Your task to perform on an android device: turn off data saver in the chrome app Image 0: 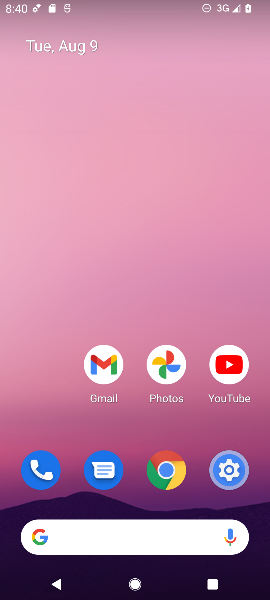
Step 0: click (164, 469)
Your task to perform on an android device: turn off data saver in the chrome app Image 1: 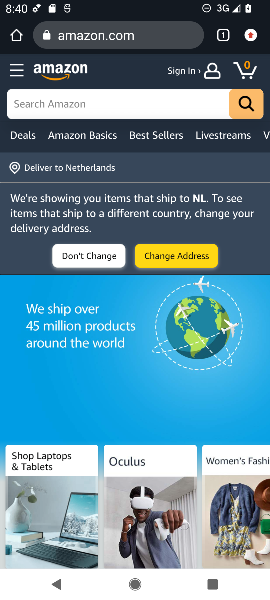
Step 1: click (249, 33)
Your task to perform on an android device: turn off data saver in the chrome app Image 2: 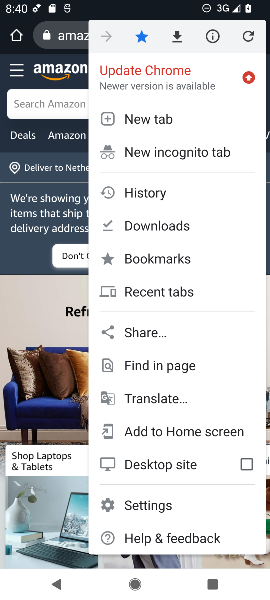
Step 2: click (140, 504)
Your task to perform on an android device: turn off data saver in the chrome app Image 3: 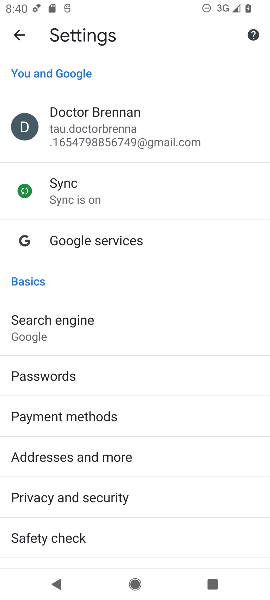
Step 3: drag from (92, 428) to (134, 322)
Your task to perform on an android device: turn off data saver in the chrome app Image 4: 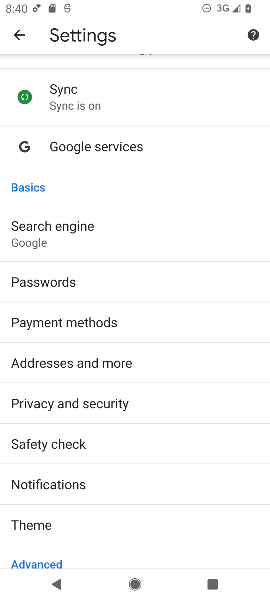
Step 4: drag from (97, 446) to (148, 353)
Your task to perform on an android device: turn off data saver in the chrome app Image 5: 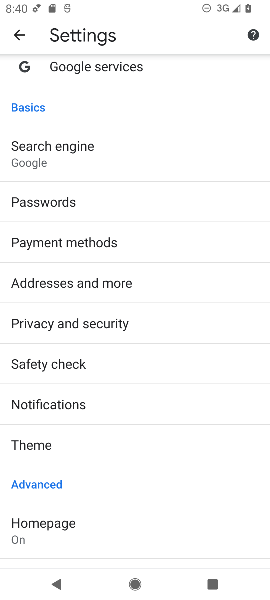
Step 5: drag from (91, 434) to (170, 336)
Your task to perform on an android device: turn off data saver in the chrome app Image 6: 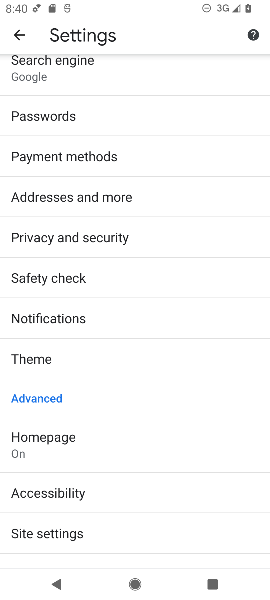
Step 6: drag from (111, 431) to (174, 338)
Your task to perform on an android device: turn off data saver in the chrome app Image 7: 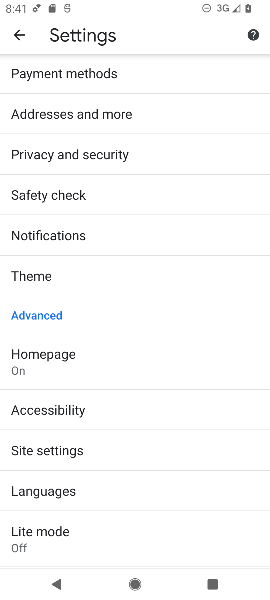
Step 7: click (50, 531)
Your task to perform on an android device: turn off data saver in the chrome app Image 8: 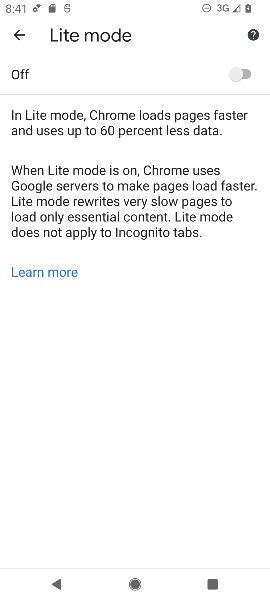
Step 8: task complete